Your task to perform on an android device: delete the emails in spam in the gmail app Image 0: 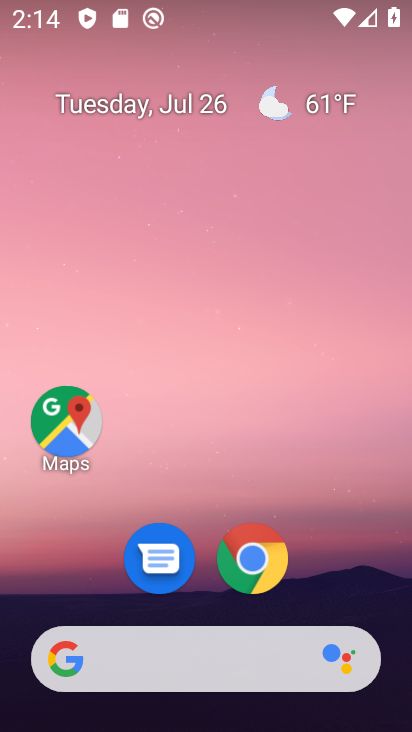
Step 0: drag from (76, 544) to (215, 75)
Your task to perform on an android device: delete the emails in spam in the gmail app Image 1: 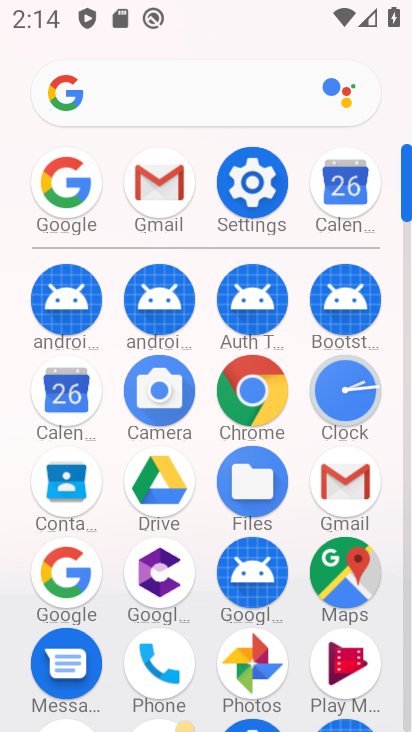
Step 1: click (162, 184)
Your task to perform on an android device: delete the emails in spam in the gmail app Image 2: 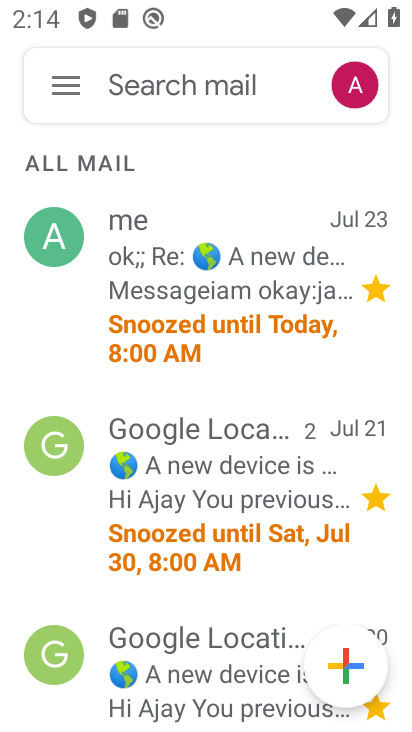
Step 2: click (62, 81)
Your task to perform on an android device: delete the emails in spam in the gmail app Image 3: 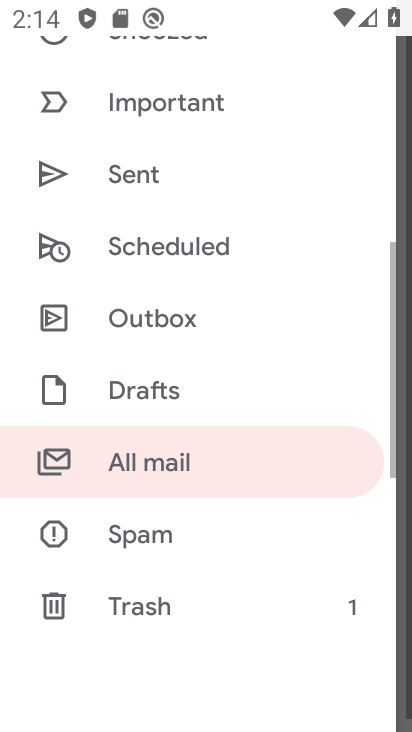
Step 3: drag from (184, 204) to (202, 322)
Your task to perform on an android device: delete the emails in spam in the gmail app Image 4: 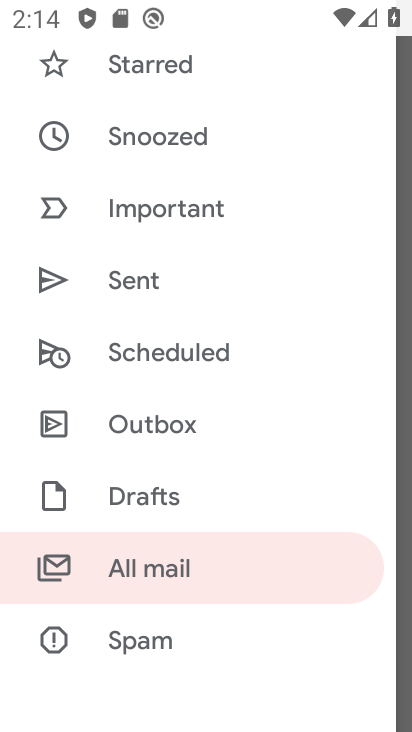
Step 4: click (144, 636)
Your task to perform on an android device: delete the emails in spam in the gmail app Image 5: 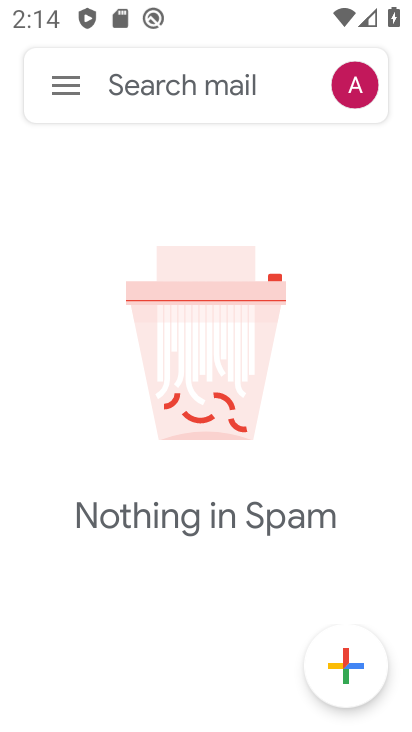
Step 5: task complete